Your task to perform on an android device: Open my contact list Image 0: 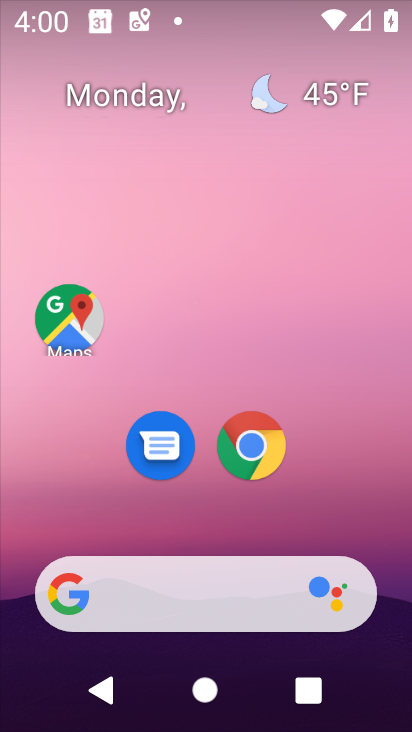
Step 0: drag from (327, 534) to (317, 49)
Your task to perform on an android device: Open my contact list Image 1: 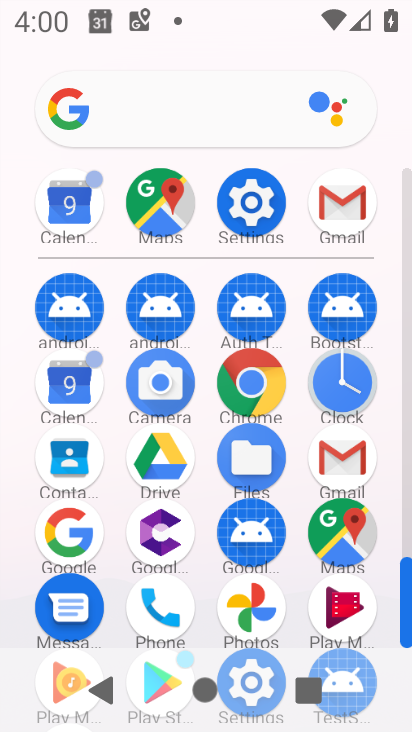
Step 1: click (52, 468)
Your task to perform on an android device: Open my contact list Image 2: 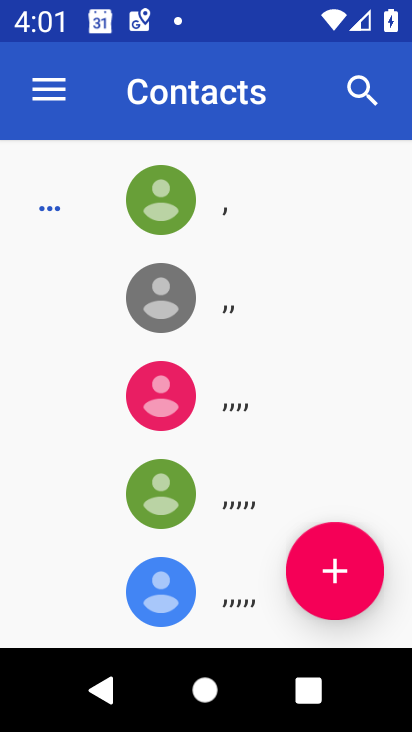
Step 2: task complete